Your task to perform on an android device: turn notification dots off Image 0: 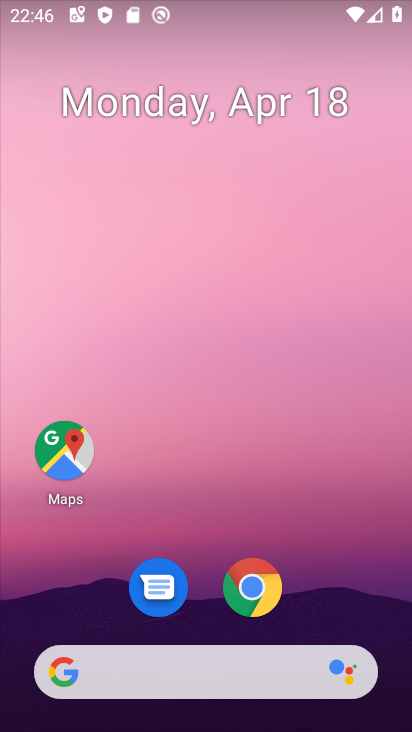
Step 0: drag from (361, 595) to (355, 197)
Your task to perform on an android device: turn notification dots off Image 1: 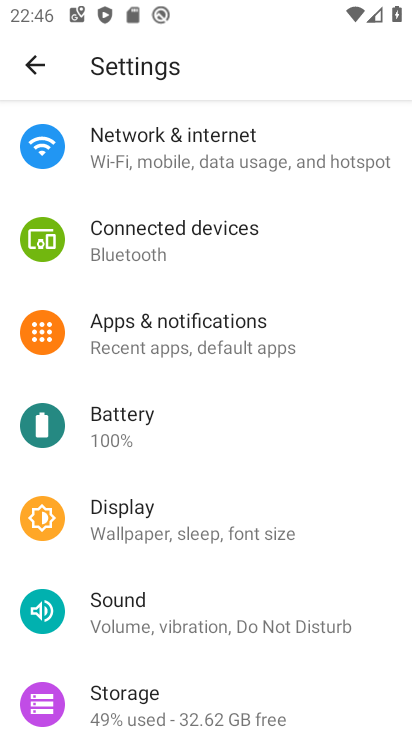
Step 1: click (207, 333)
Your task to perform on an android device: turn notification dots off Image 2: 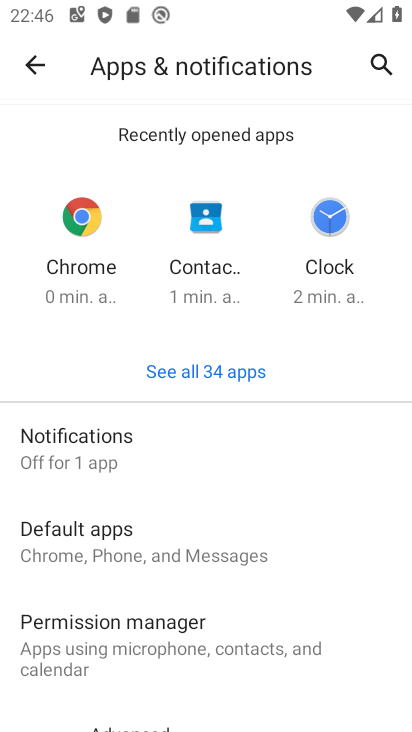
Step 2: click (117, 434)
Your task to perform on an android device: turn notification dots off Image 3: 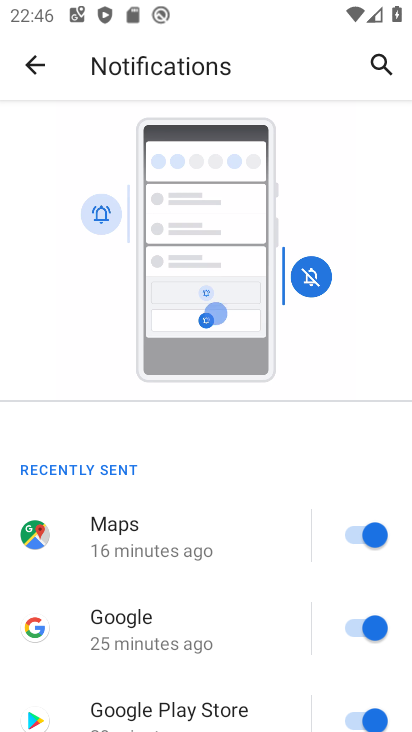
Step 3: drag from (249, 572) to (363, 243)
Your task to perform on an android device: turn notification dots off Image 4: 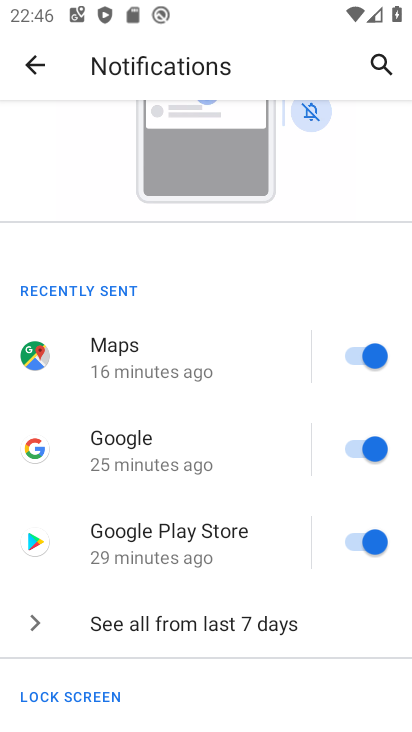
Step 4: drag from (157, 697) to (305, 294)
Your task to perform on an android device: turn notification dots off Image 5: 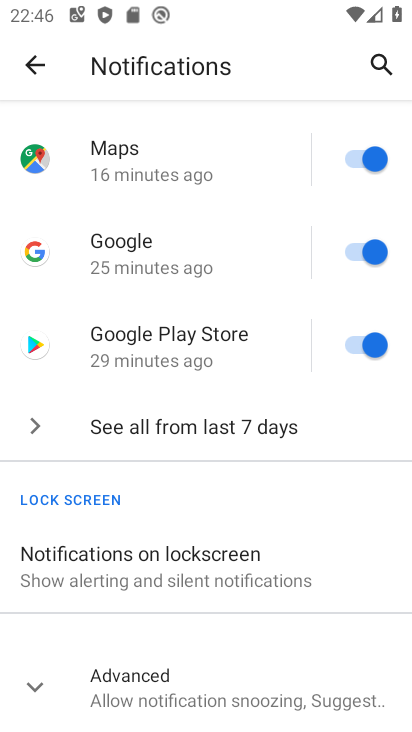
Step 5: drag from (264, 665) to (292, 265)
Your task to perform on an android device: turn notification dots off Image 6: 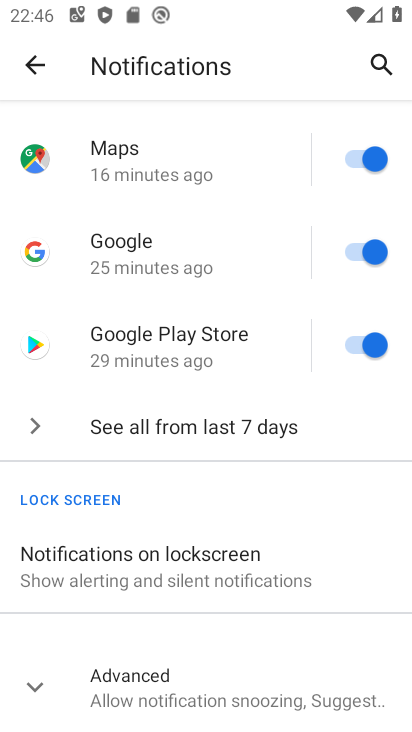
Step 6: click (192, 698)
Your task to perform on an android device: turn notification dots off Image 7: 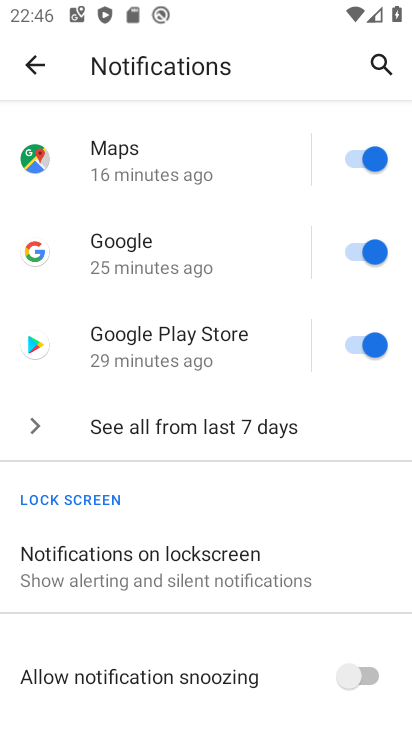
Step 7: drag from (194, 595) to (282, 285)
Your task to perform on an android device: turn notification dots off Image 8: 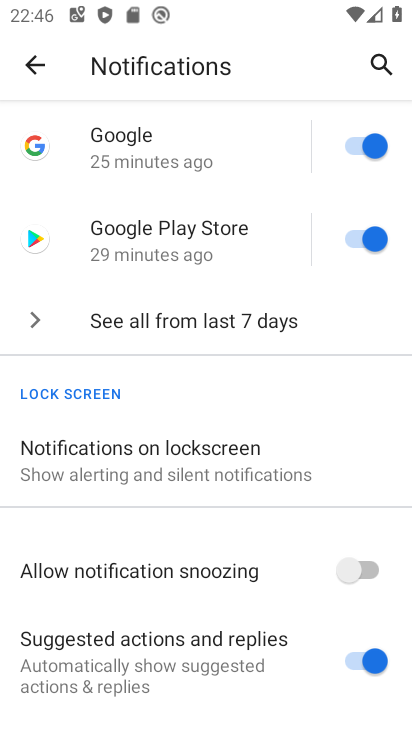
Step 8: drag from (216, 677) to (260, 329)
Your task to perform on an android device: turn notification dots off Image 9: 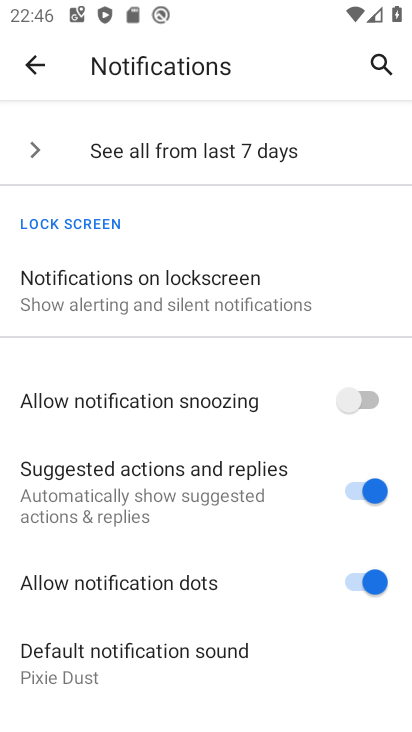
Step 9: click (357, 584)
Your task to perform on an android device: turn notification dots off Image 10: 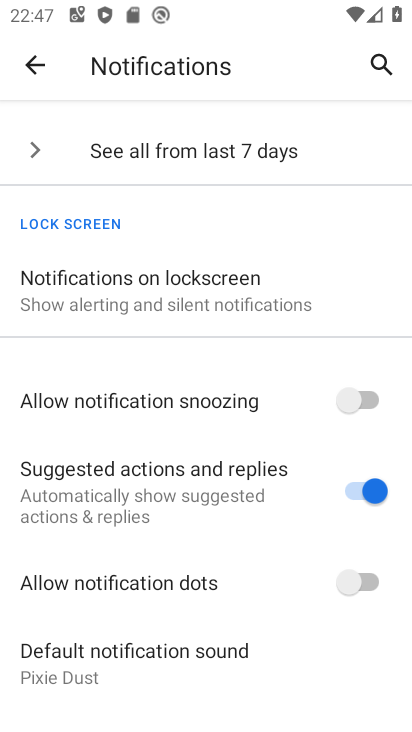
Step 10: task complete